Your task to perform on an android device: see tabs open on other devices in the chrome app Image 0: 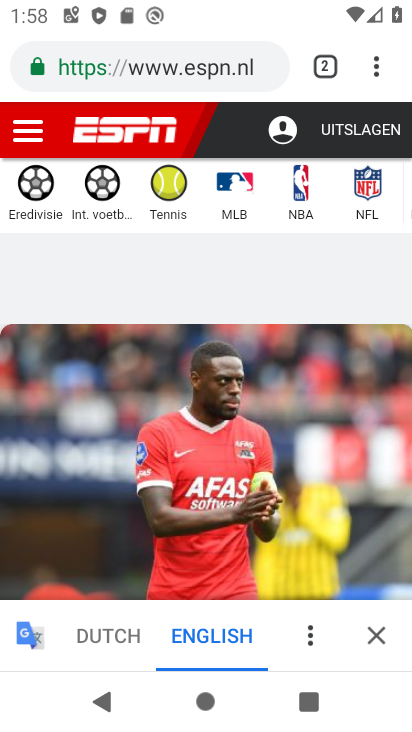
Step 0: click (372, 68)
Your task to perform on an android device: see tabs open on other devices in the chrome app Image 1: 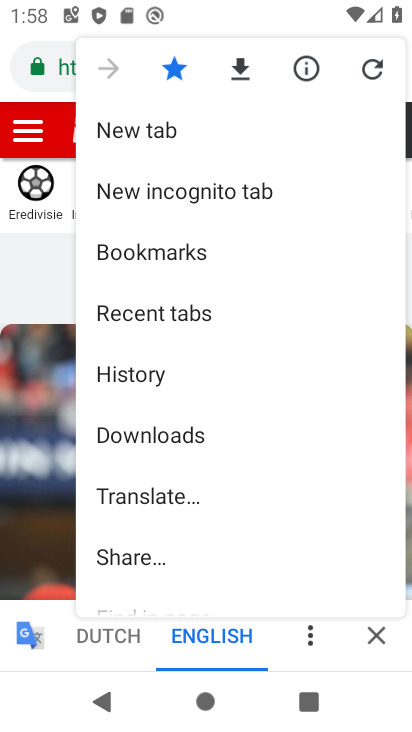
Step 1: click (200, 312)
Your task to perform on an android device: see tabs open on other devices in the chrome app Image 2: 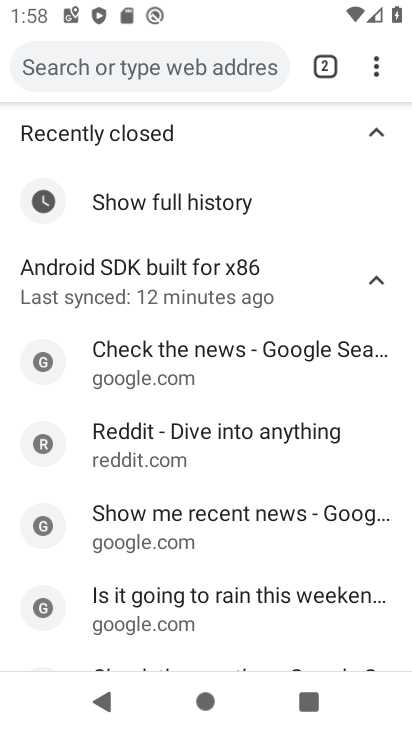
Step 2: task complete